Your task to perform on an android device: move a message to another label in the gmail app Image 0: 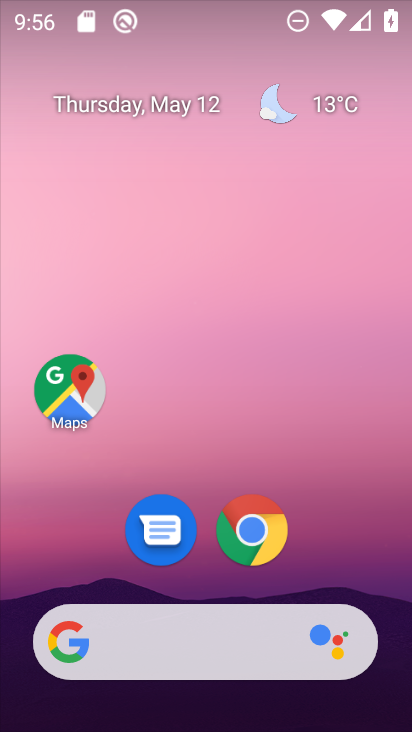
Step 0: drag from (319, 467) to (315, 58)
Your task to perform on an android device: move a message to another label in the gmail app Image 1: 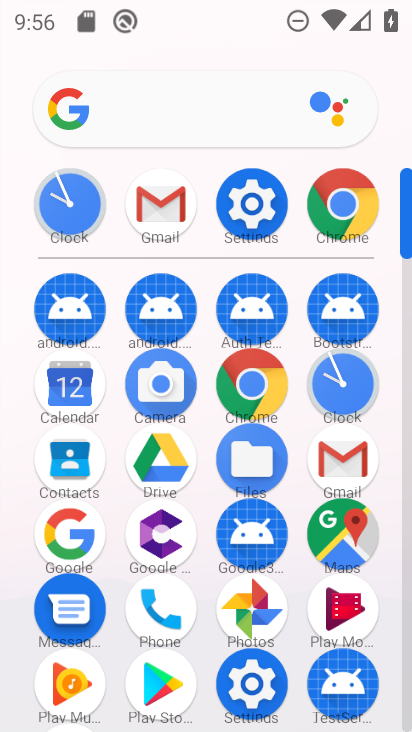
Step 1: click (148, 235)
Your task to perform on an android device: move a message to another label in the gmail app Image 2: 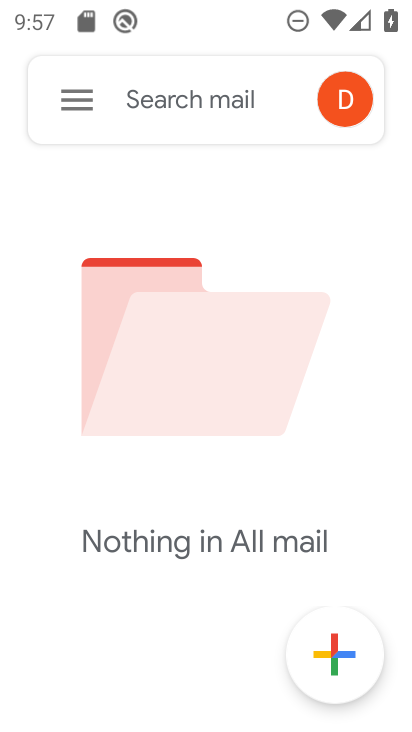
Step 2: task complete